Your task to perform on an android device: turn on wifi Image 0: 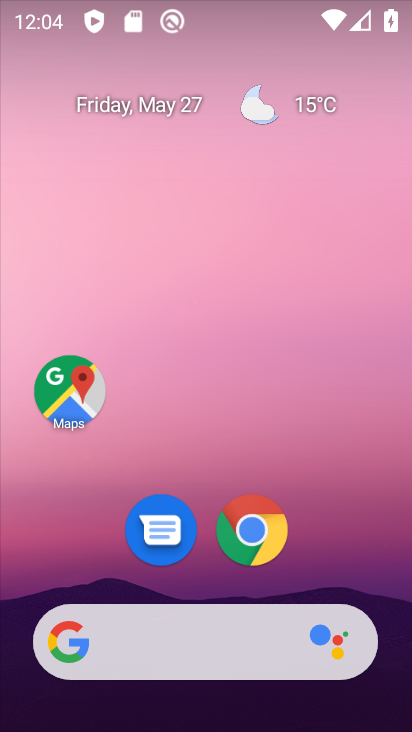
Step 0: drag from (96, 594) to (185, 249)
Your task to perform on an android device: turn on wifi Image 1: 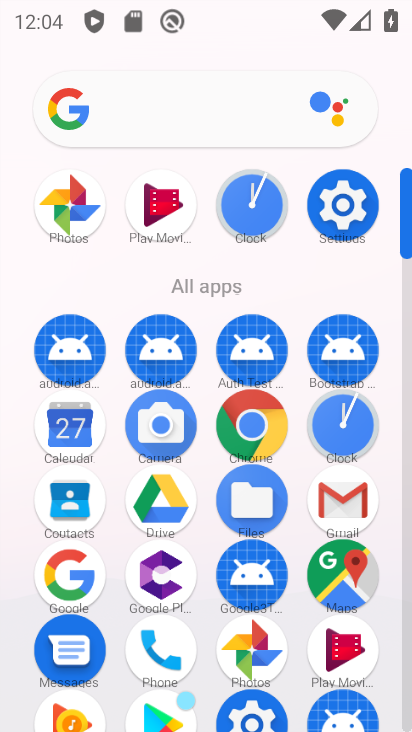
Step 1: drag from (137, 545) to (231, 220)
Your task to perform on an android device: turn on wifi Image 2: 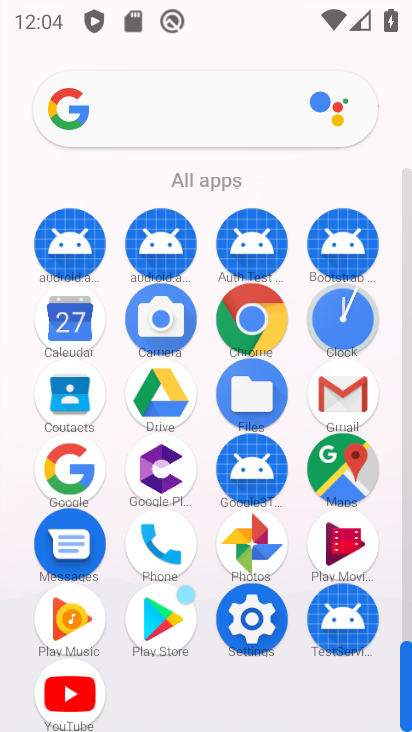
Step 2: click (262, 611)
Your task to perform on an android device: turn on wifi Image 3: 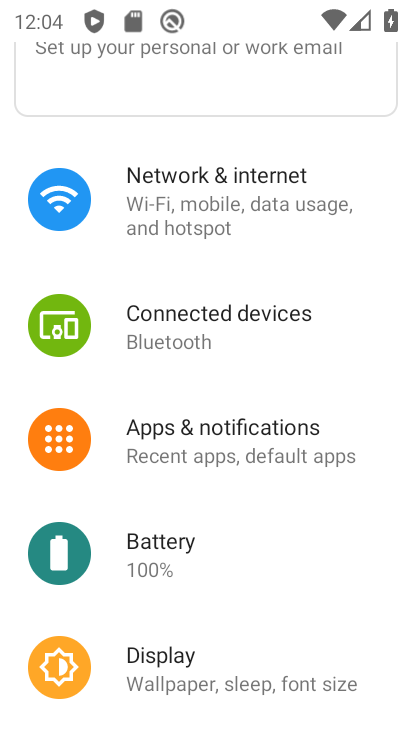
Step 3: click (272, 200)
Your task to perform on an android device: turn on wifi Image 4: 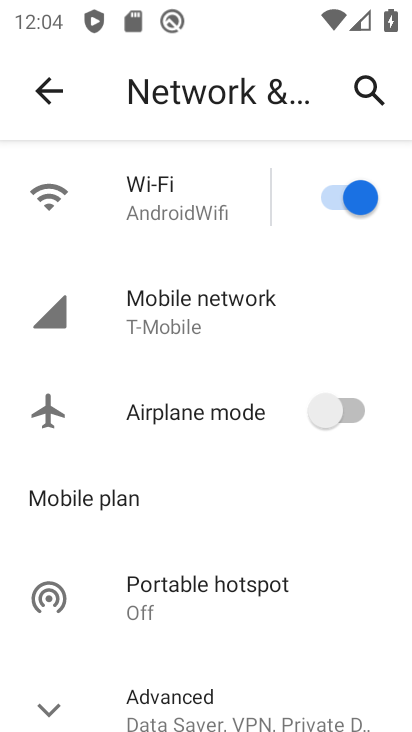
Step 4: click (141, 208)
Your task to perform on an android device: turn on wifi Image 5: 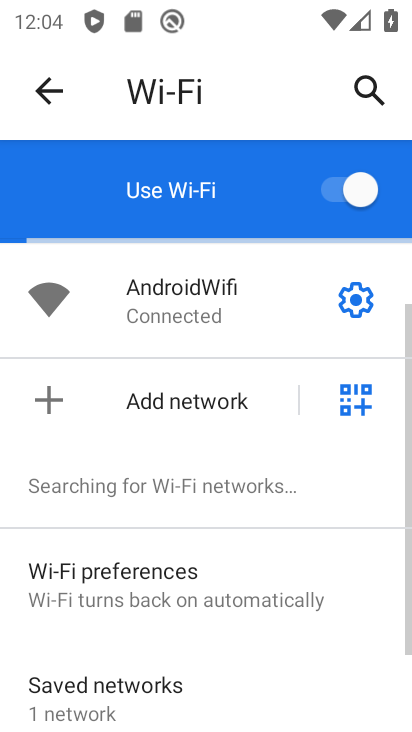
Step 5: task complete